Your task to perform on an android device: toggle location history Image 0: 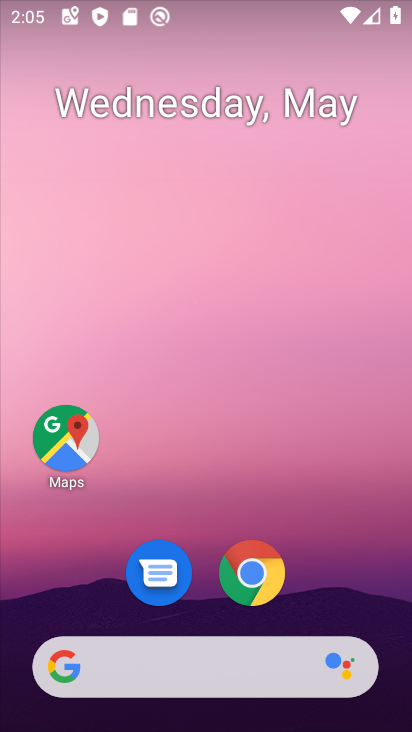
Step 0: drag from (354, 581) to (319, 400)
Your task to perform on an android device: toggle location history Image 1: 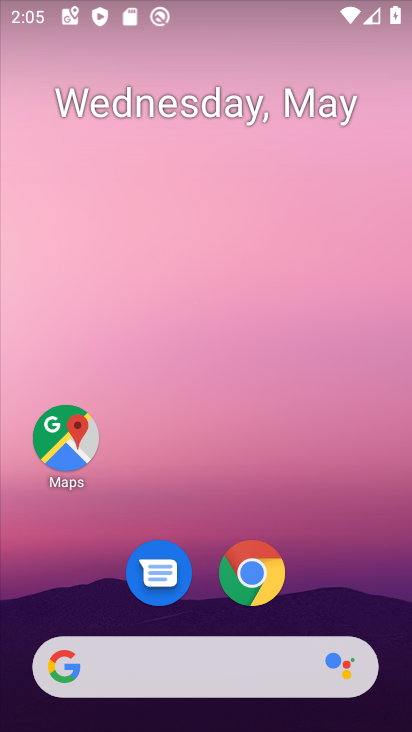
Step 1: drag from (311, 547) to (311, 254)
Your task to perform on an android device: toggle location history Image 2: 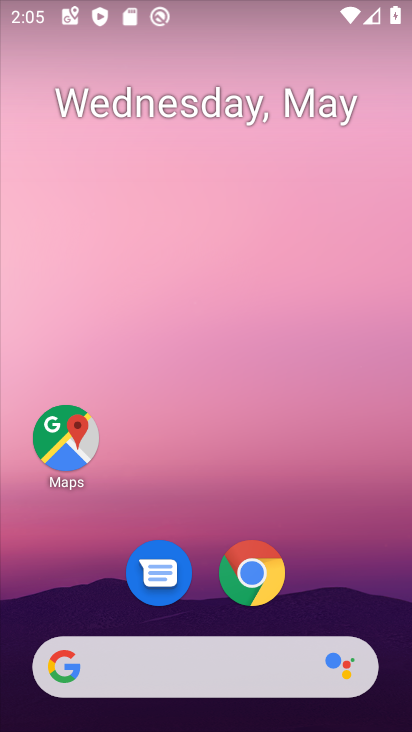
Step 2: drag from (318, 631) to (340, 71)
Your task to perform on an android device: toggle location history Image 3: 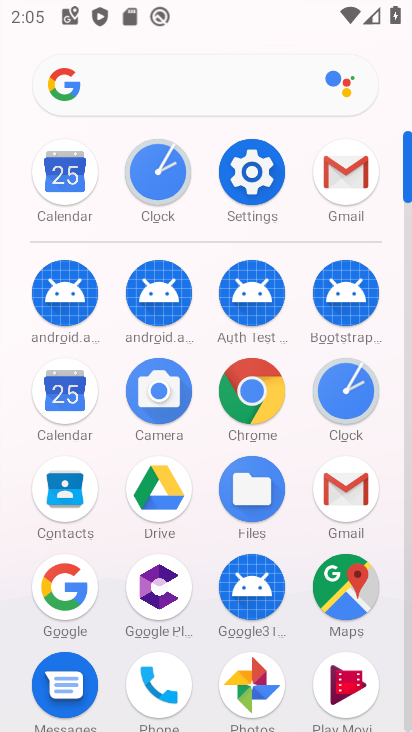
Step 3: click (263, 171)
Your task to perform on an android device: toggle location history Image 4: 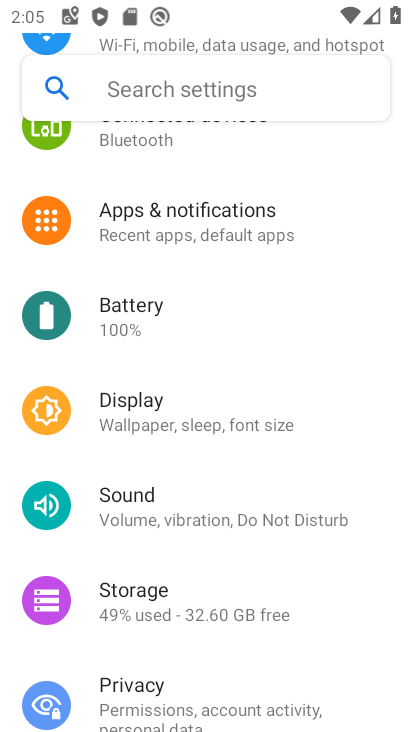
Step 4: drag from (187, 603) to (191, 233)
Your task to perform on an android device: toggle location history Image 5: 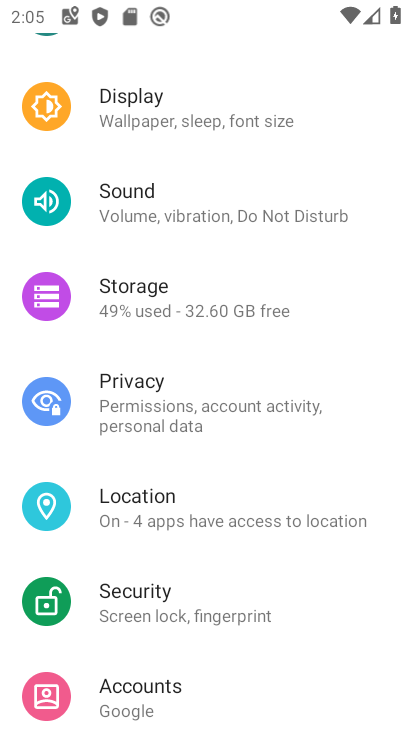
Step 5: click (160, 521)
Your task to perform on an android device: toggle location history Image 6: 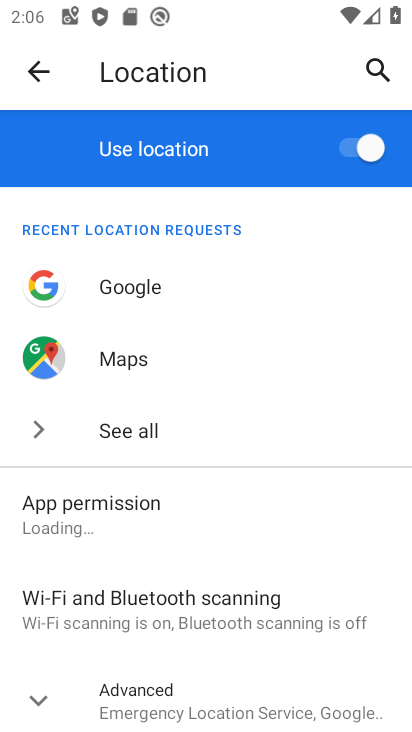
Step 6: click (170, 689)
Your task to perform on an android device: toggle location history Image 7: 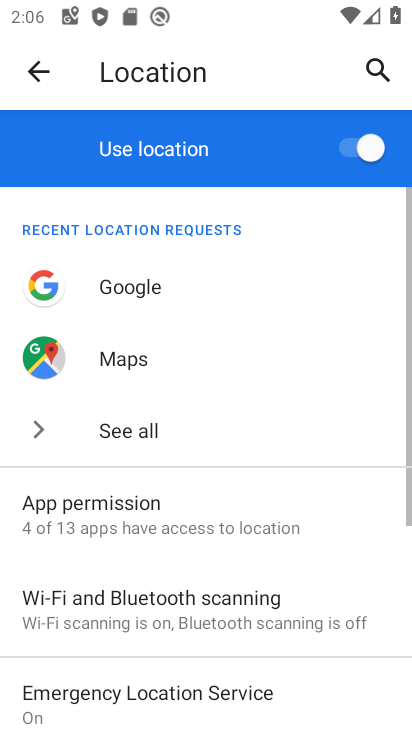
Step 7: drag from (157, 666) to (207, 299)
Your task to perform on an android device: toggle location history Image 8: 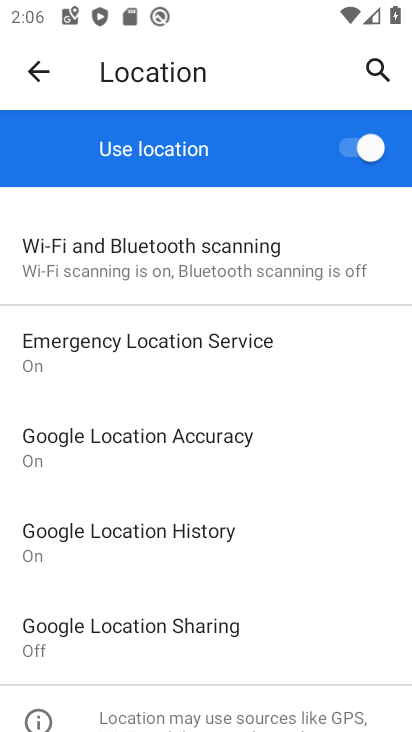
Step 8: click (153, 514)
Your task to perform on an android device: toggle location history Image 9: 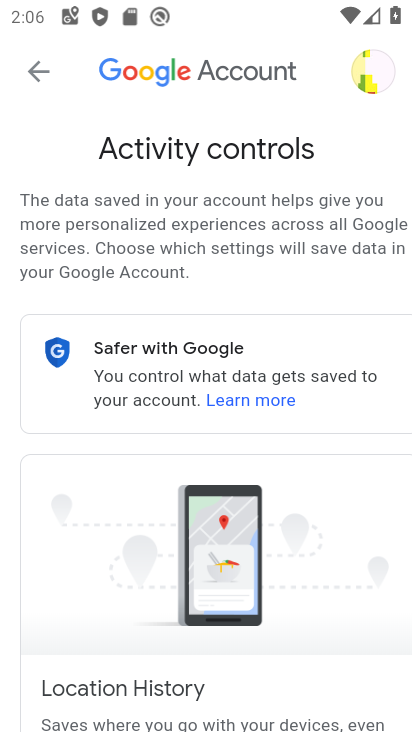
Step 9: drag from (149, 573) to (178, 152)
Your task to perform on an android device: toggle location history Image 10: 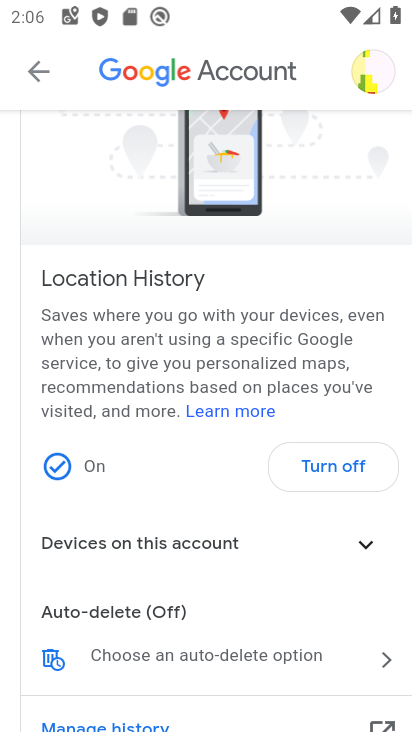
Step 10: click (352, 470)
Your task to perform on an android device: toggle location history Image 11: 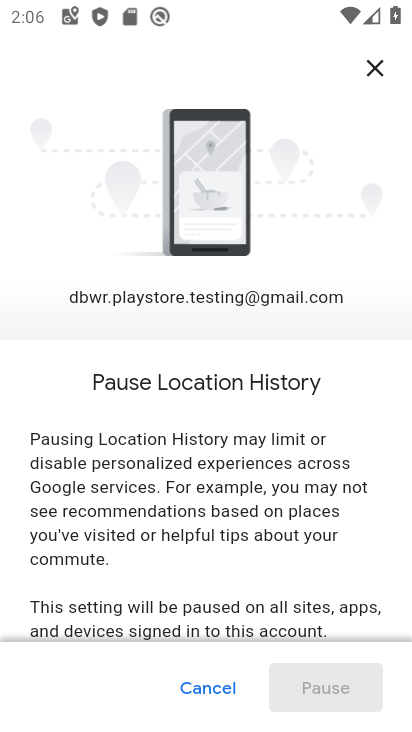
Step 11: drag from (285, 553) to (291, 59)
Your task to perform on an android device: toggle location history Image 12: 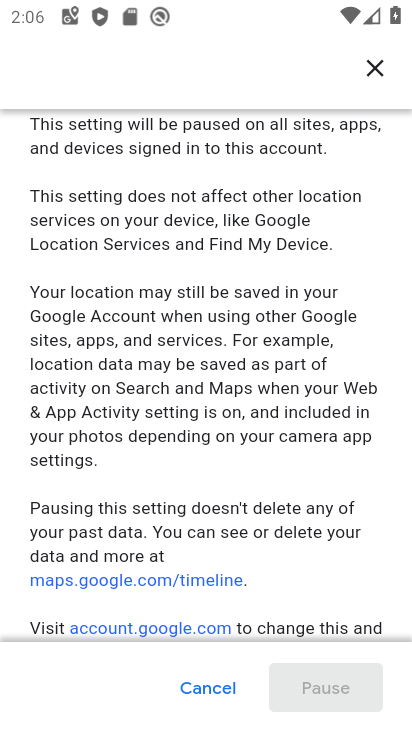
Step 12: drag from (281, 458) to (303, 0)
Your task to perform on an android device: toggle location history Image 13: 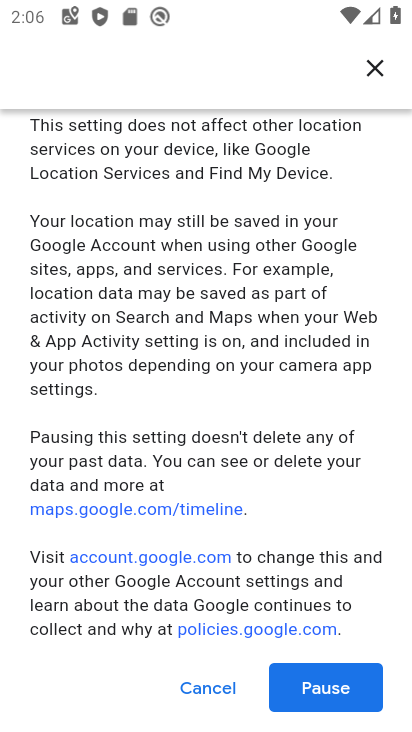
Step 13: click (327, 686)
Your task to perform on an android device: toggle location history Image 14: 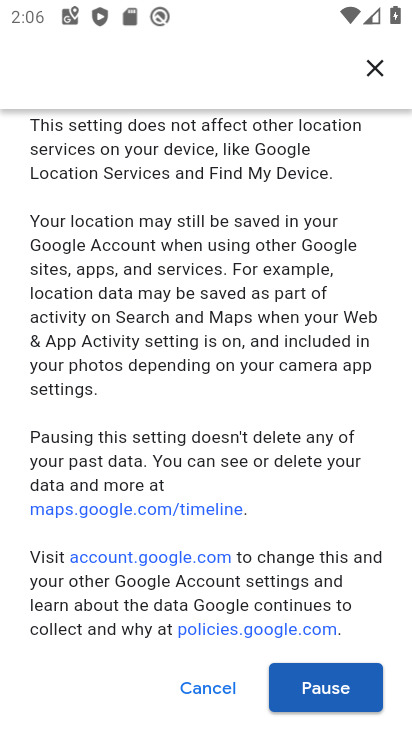
Step 14: click (311, 693)
Your task to perform on an android device: toggle location history Image 15: 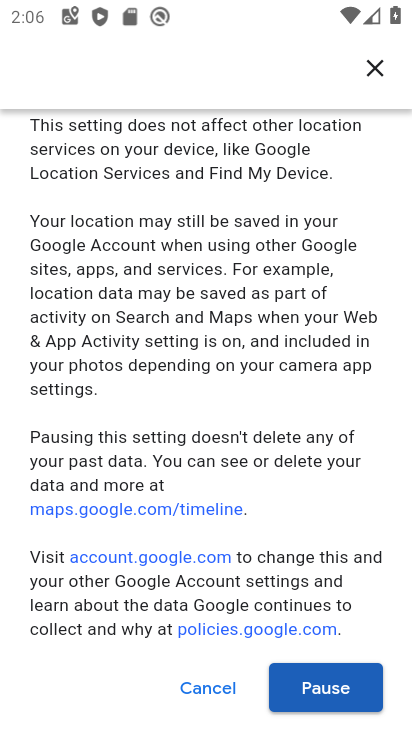
Step 15: click (302, 687)
Your task to perform on an android device: toggle location history Image 16: 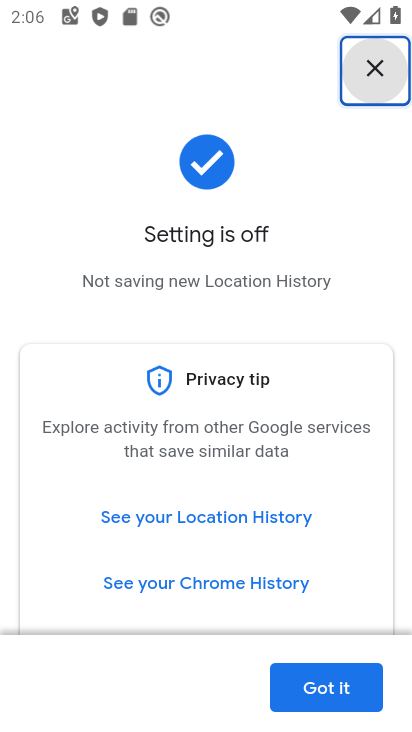
Step 16: click (359, 697)
Your task to perform on an android device: toggle location history Image 17: 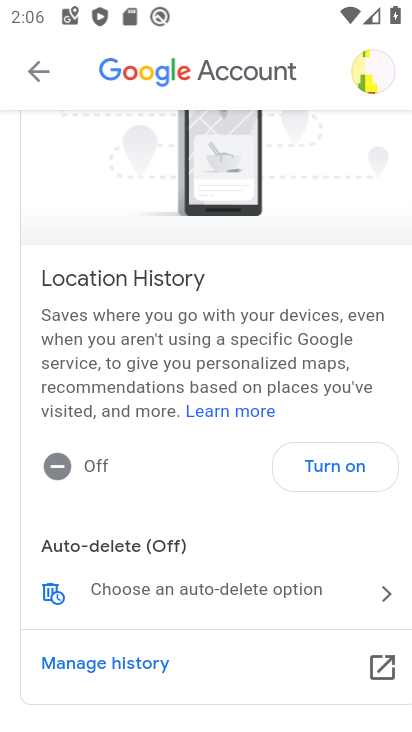
Step 17: task complete